Your task to perform on an android device: When is my next appointment? Image 0: 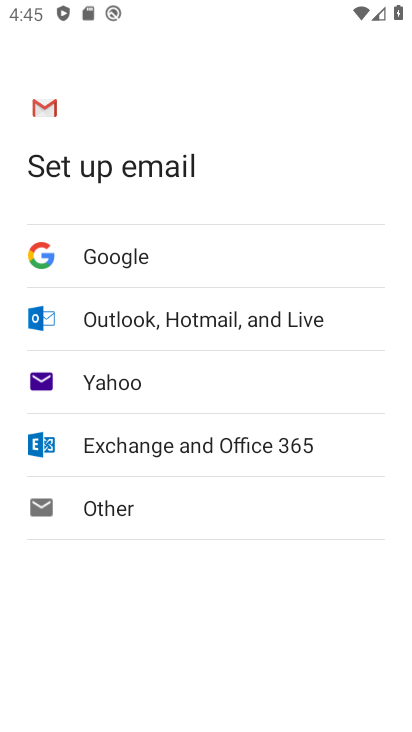
Step 0: press back button
Your task to perform on an android device: When is my next appointment? Image 1: 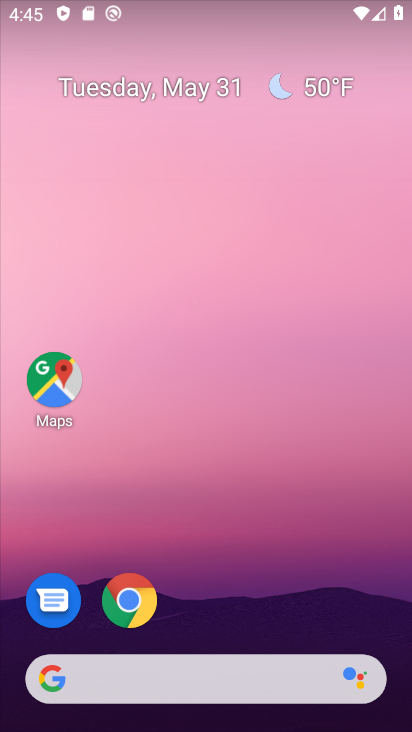
Step 1: drag from (235, 569) to (197, 70)
Your task to perform on an android device: When is my next appointment? Image 2: 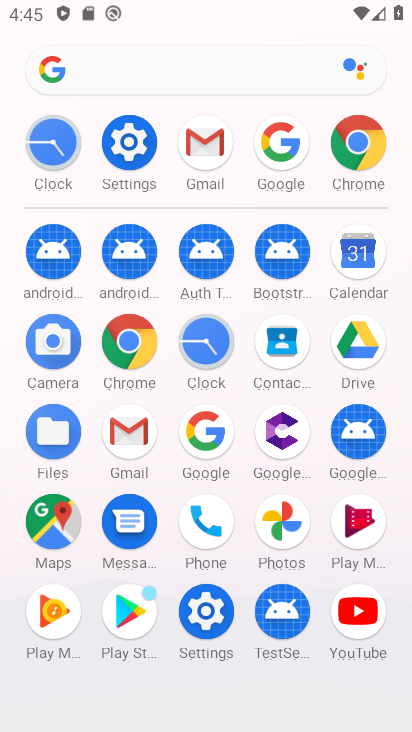
Step 2: click (358, 252)
Your task to perform on an android device: When is my next appointment? Image 3: 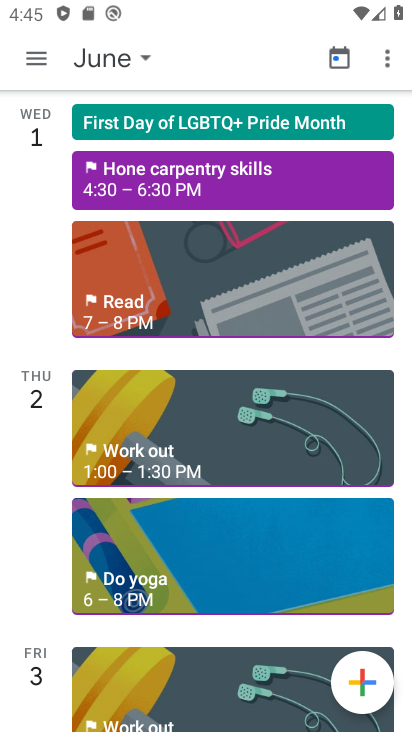
Step 3: click (336, 53)
Your task to perform on an android device: When is my next appointment? Image 4: 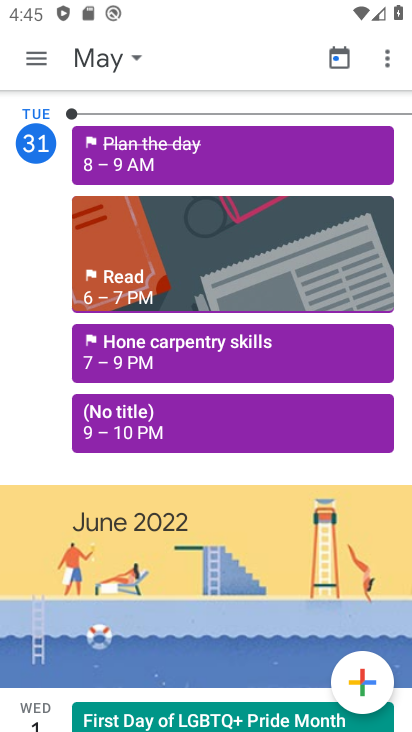
Step 4: click (134, 58)
Your task to perform on an android device: When is my next appointment? Image 5: 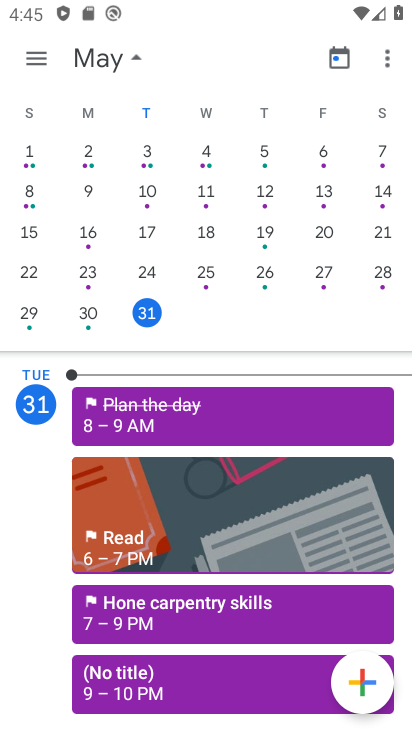
Step 5: drag from (289, 216) to (55, 243)
Your task to perform on an android device: When is my next appointment? Image 6: 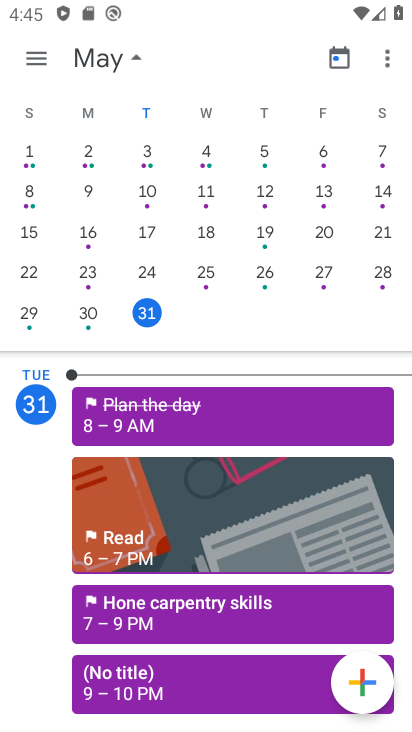
Step 6: drag from (363, 210) to (0, 227)
Your task to perform on an android device: When is my next appointment? Image 7: 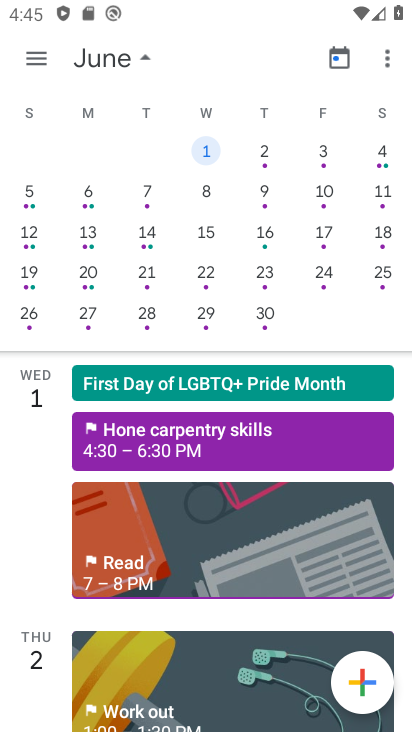
Step 7: click (205, 153)
Your task to perform on an android device: When is my next appointment? Image 8: 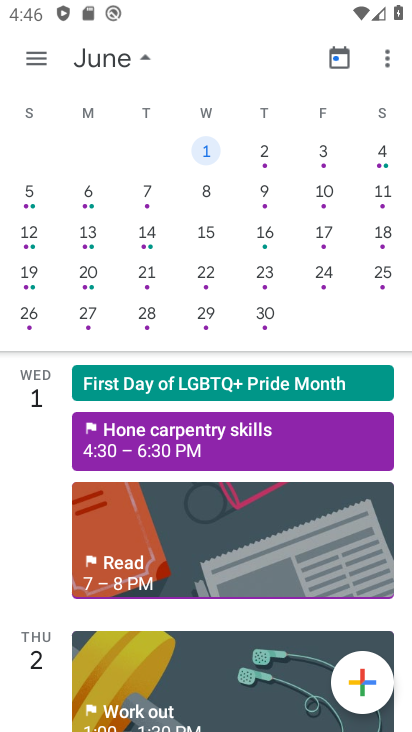
Step 8: click (35, 58)
Your task to perform on an android device: When is my next appointment? Image 9: 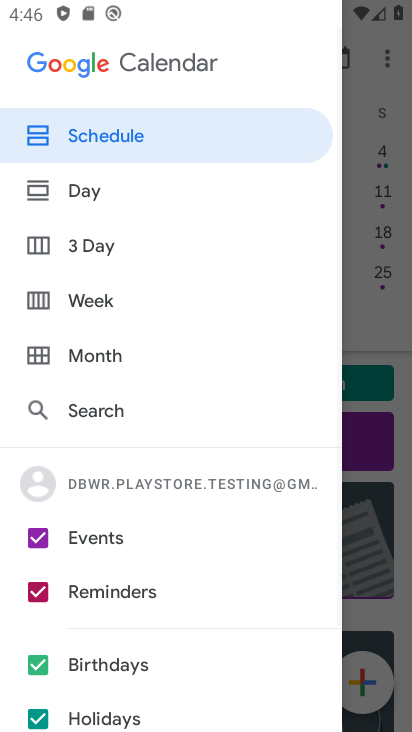
Step 9: click (75, 141)
Your task to perform on an android device: When is my next appointment? Image 10: 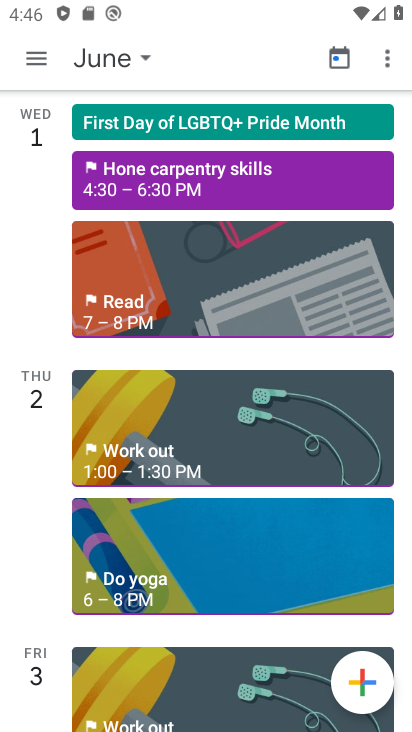
Step 10: task complete